Your task to perform on an android device: install app "AliExpress" Image 0: 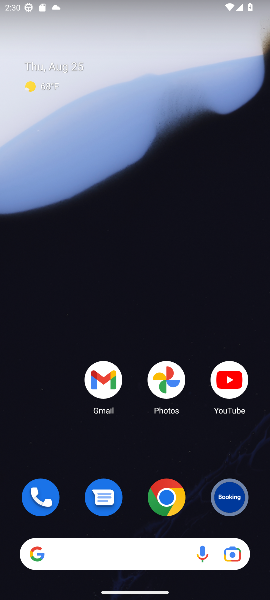
Step 0: drag from (113, 446) to (141, 105)
Your task to perform on an android device: install app "AliExpress" Image 1: 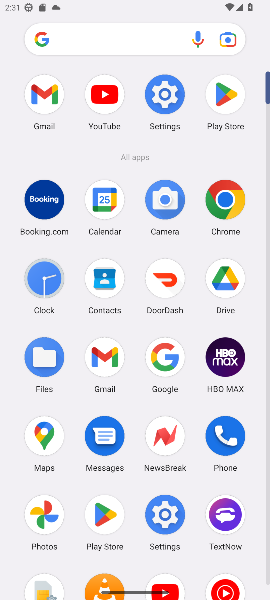
Step 1: click (222, 89)
Your task to perform on an android device: install app "AliExpress" Image 2: 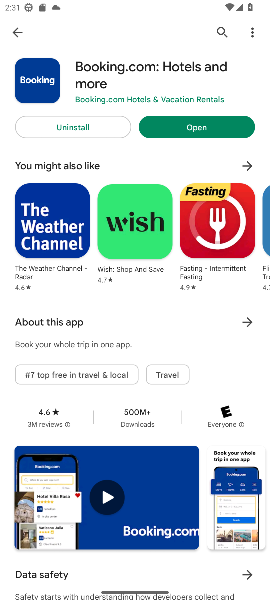
Step 2: click (27, 30)
Your task to perform on an android device: install app "AliExpress" Image 3: 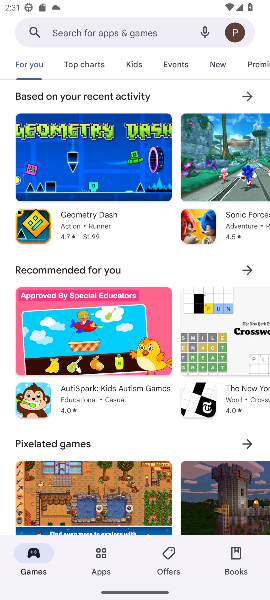
Step 3: click (95, 23)
Your task to perform on an android device: install app "AliExpress" Image 4: 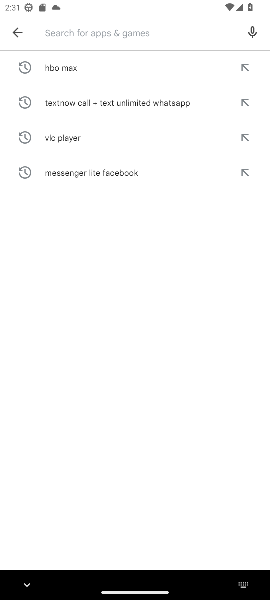
Step 4: type "AliExpress "
Your task to perform on an android device: install app "AliExpress" Image 5: 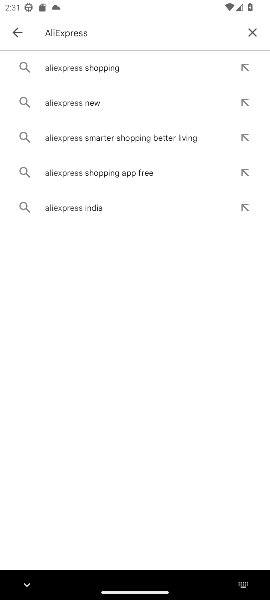
Step 5: click (74, 102)
Your task to perform on an android device: install app "AliExpress" Image 6: 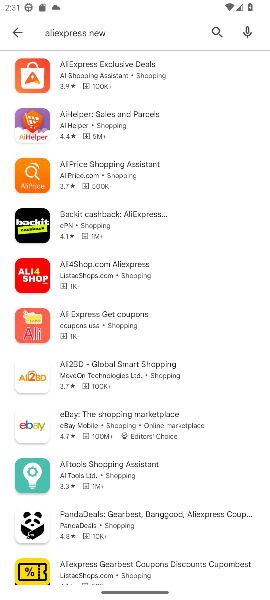
Step 6: click (97, 78)
Your task to perform on an android device: install app "AliExpress" Image 7: 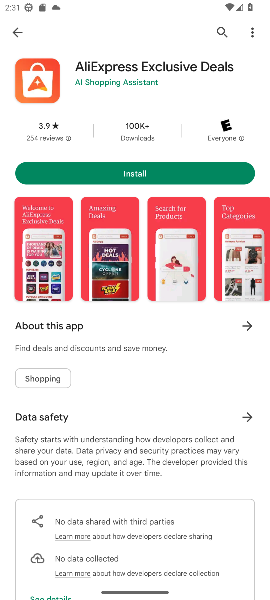
Step 7: click (139, 162)
Your task to perform on an android device: install app "AliExpress" Image 8: 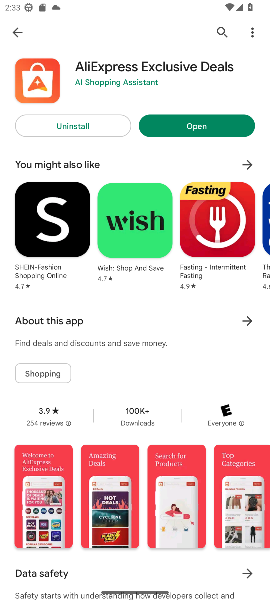
Step 8: task complete